Your task to perform on an android device: Open location settings Image 0: 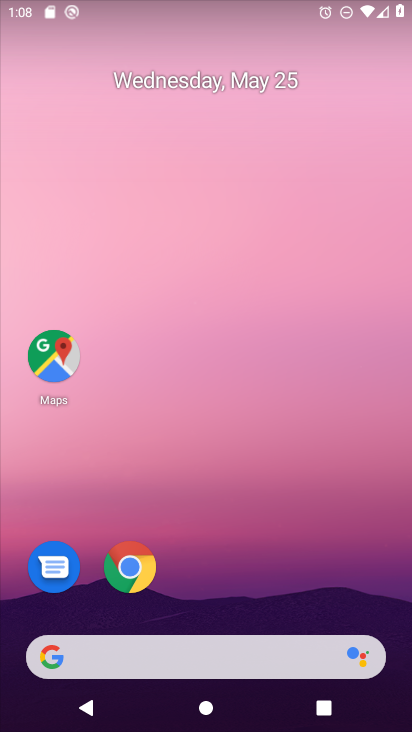
Step 0: press home button
Your task to perform on an android device: Open location settings Image 1: 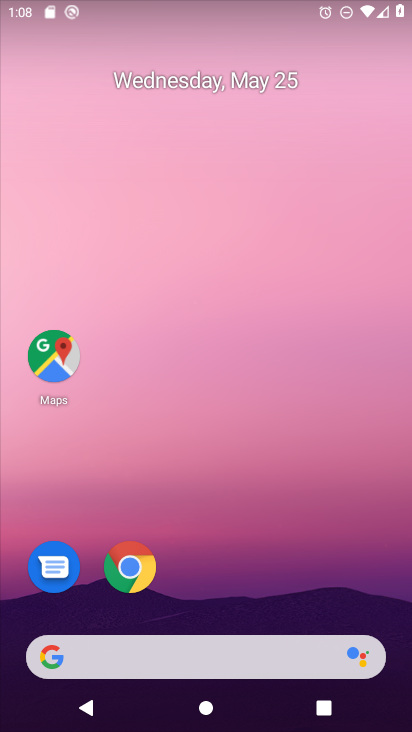
Step 1: drag from (394, 672) to (403, 72)
Your task to perform on an android device: Open location settings Image 2: 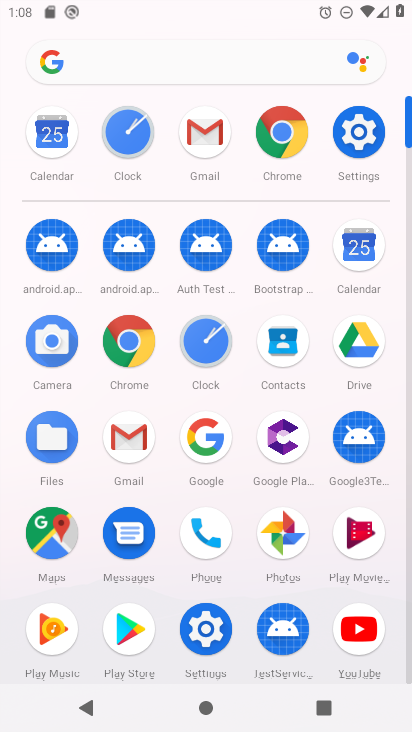
Step 2: click (348, 142)
Your task to perform on an android device: Open location settings Image 3: 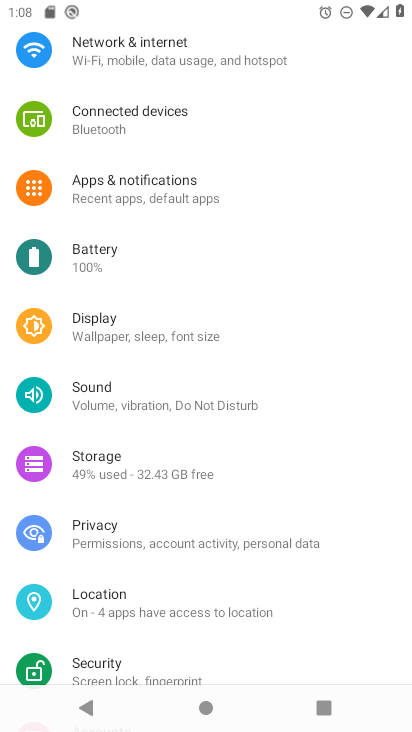
Step 3: click (92, 596)
Your task to perform on an android device: Open location settings Image 4: 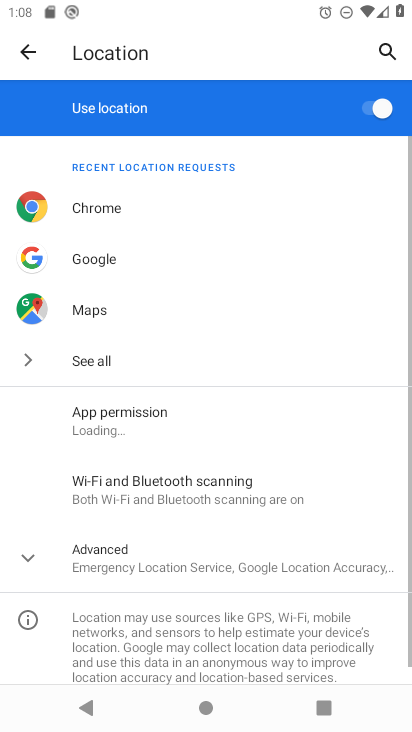
Step 4: drag from (229, 646) to (289, 218)
Your task to perform on an android device: Open location settings Image 5: 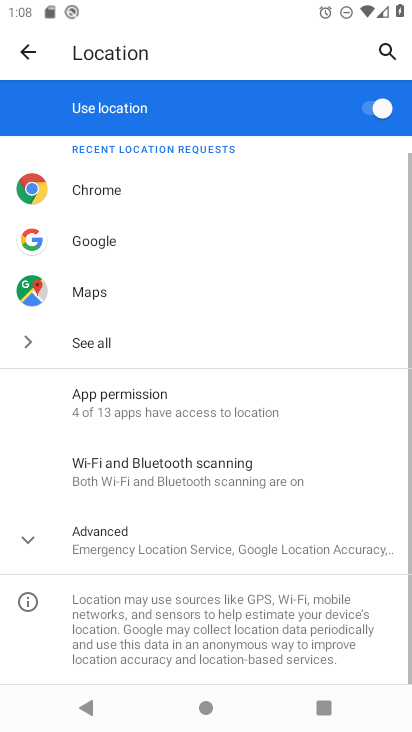
Step 5: click (22, 539)
Your task to perform on an android device: Open location settings Image 6: 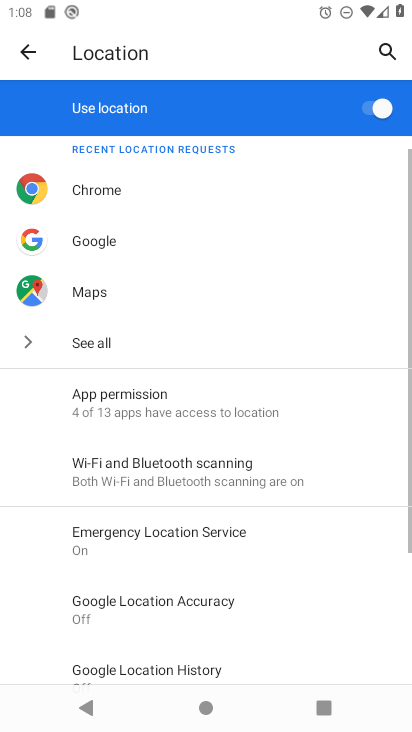
Step 6: task complete